Your task to perform on an android device: change notifications settings Image 0: 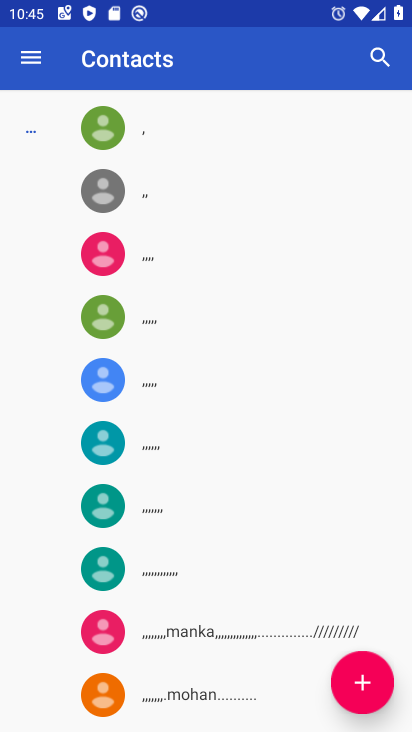
Step 0: press home button
Your task to perform on an android device: change notifications settings Image 1: 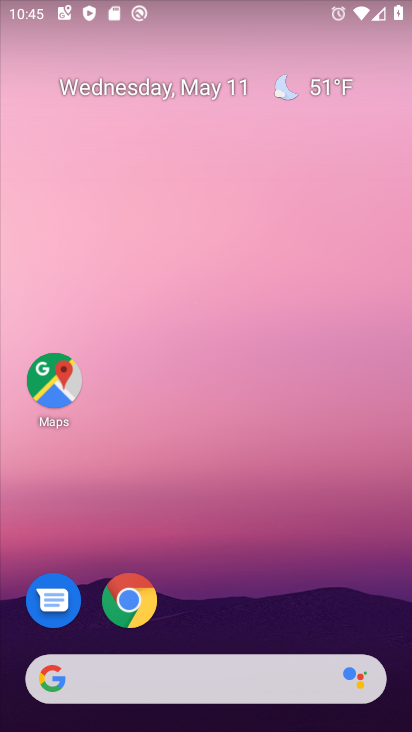
Step 1: drag from (206, 655) to (162, 189)
Your task to perform on an android device: change notifications settings Image 2: 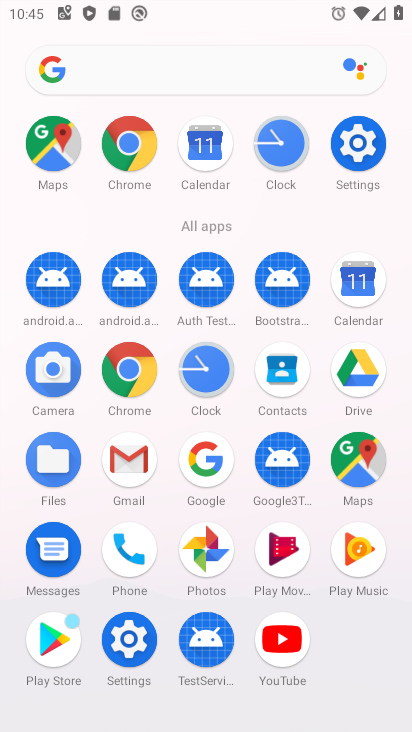
Step 2: click (356, 172)
Your task to perform on an android device: change notifications settings Image 3: 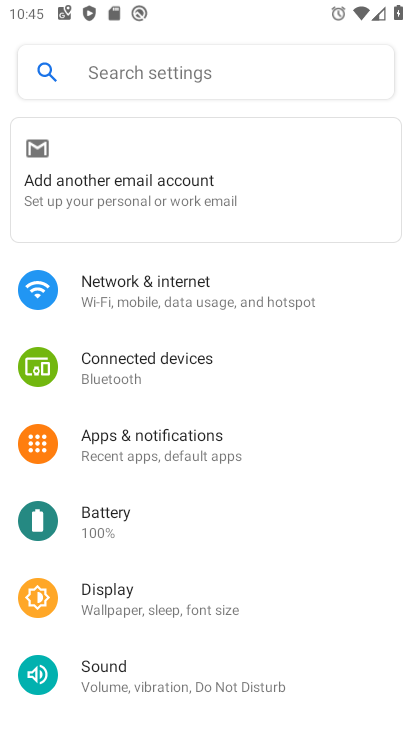
Step 3: click (120, 457)
Your task to perform on an android device: change notifications settings Image 4: 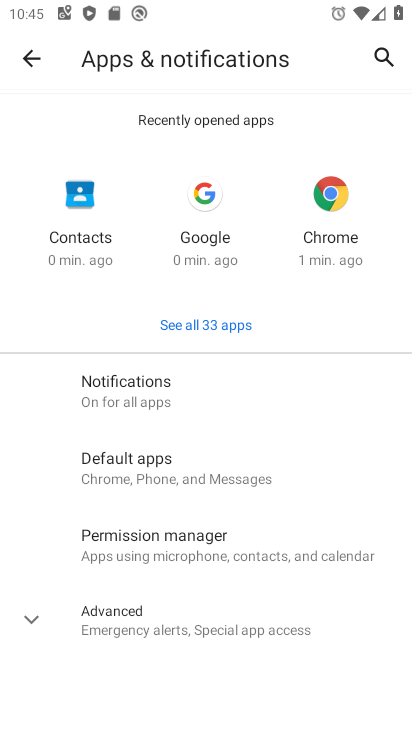
Step 4: click (148, 404)
Your task to perform on an android device: change notifications settings Image 5: 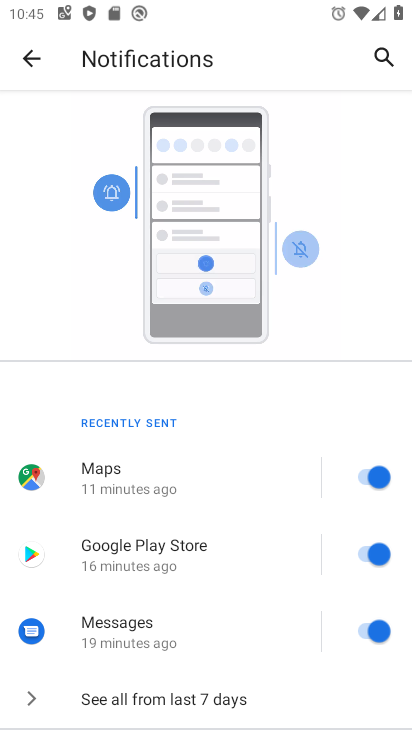
Step 5: click (149, 688)
Your task to perform on an android device: change notifications settings Image 6: 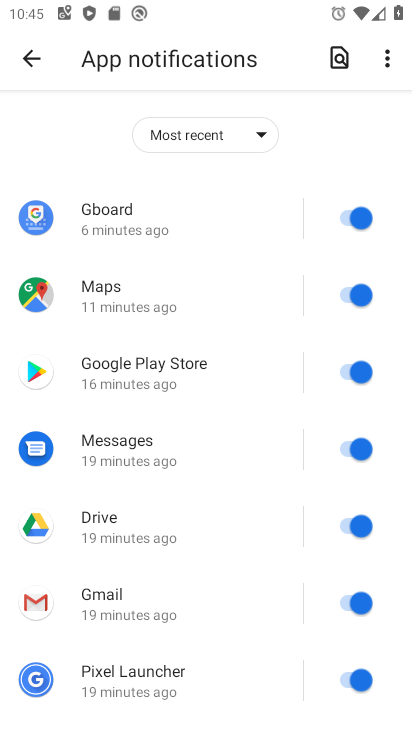
Step 6: click (191, 128)
Your task to perform on an android device: change notifications settings Image 7: 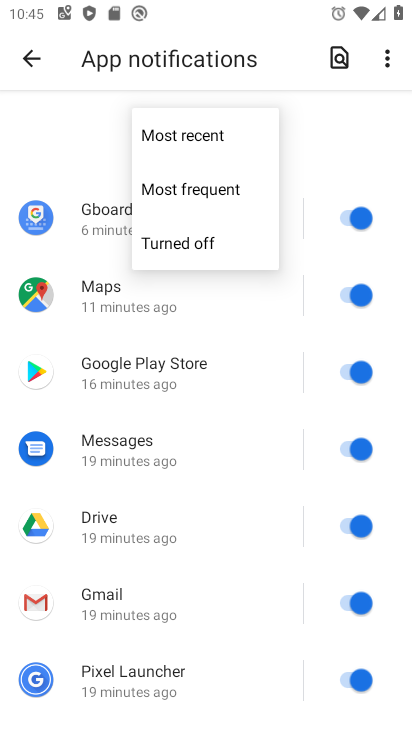
Step 7: click (192, 230)
Your task to perform on an android device: change notifications settings Image 8: 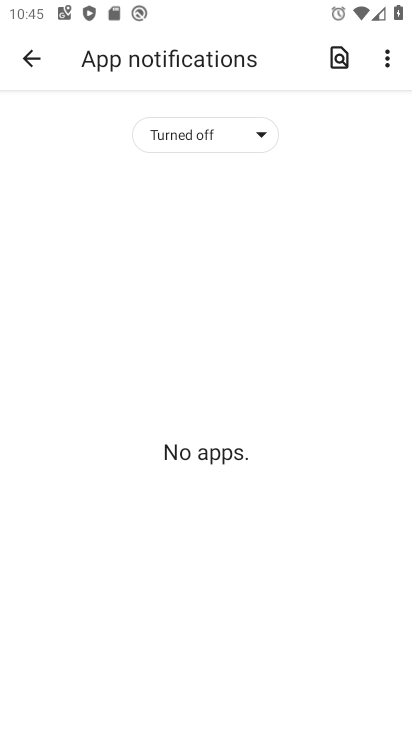
Step 8: task complete